Your task to perform on an android device: turn notification dots on Image 0: 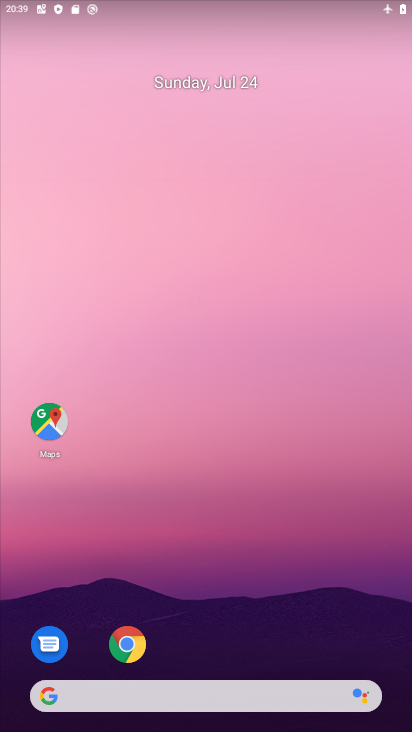
Step 0: drag from (367, 654) to (330, 300)
Your task to perform on an android device: turn notification dots on Image 1: 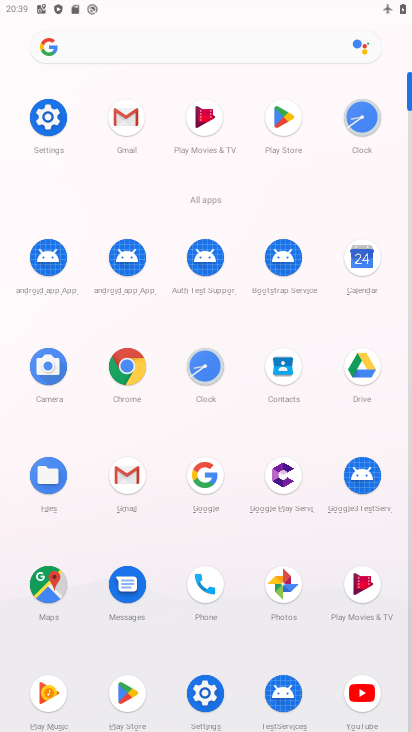
Step 1: click (206, 702)
Your task to perform on an android device: turn notification dots on Image 2: 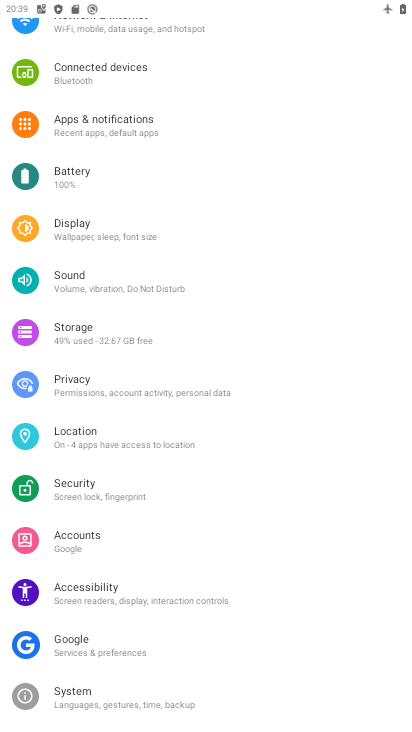
Step 2: click (112, 127)
Your task to perform on an android device: turn notification dots on Image 3: 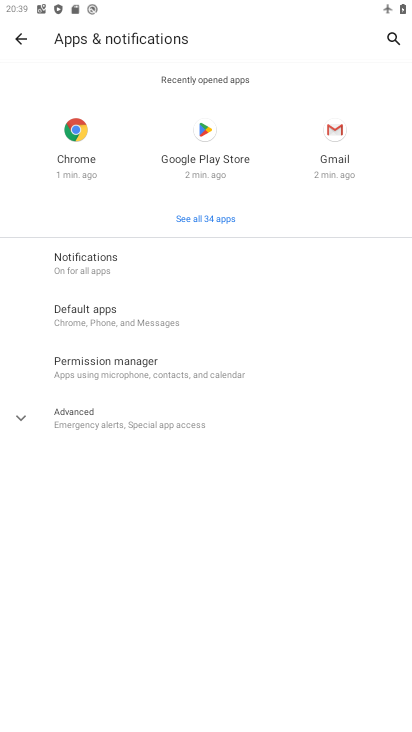
Step 3: click (85, 265)
Your task to perform on an android device: turn notification dots on Image 4: 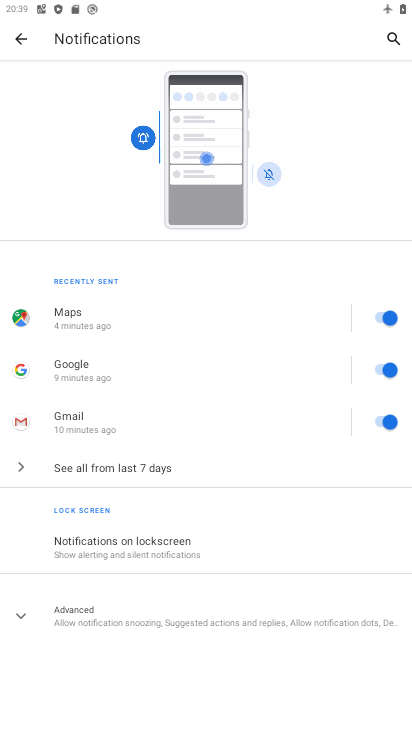
Step 4: click (28, 615)
Your task to perform on an android device: turn notification dots on Image 5: 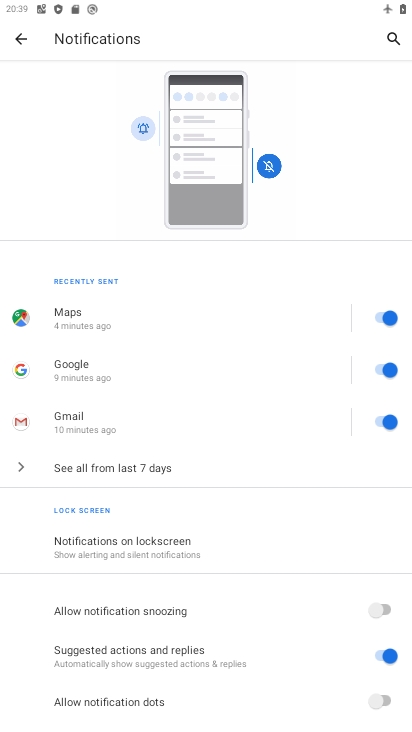
Step 5: drag from (261, 649) to (244, 351)
Your task to perform on an android device: turn notification dots on Image 6: 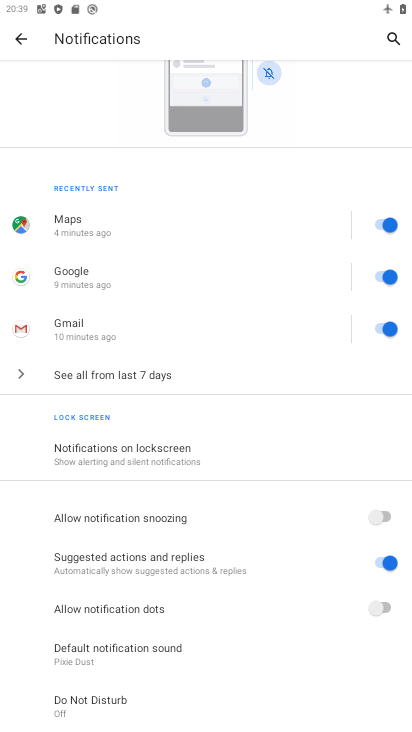
Step 6: click (390, 605)
Your task to perform on an android device: turn notification dots on Image 7: 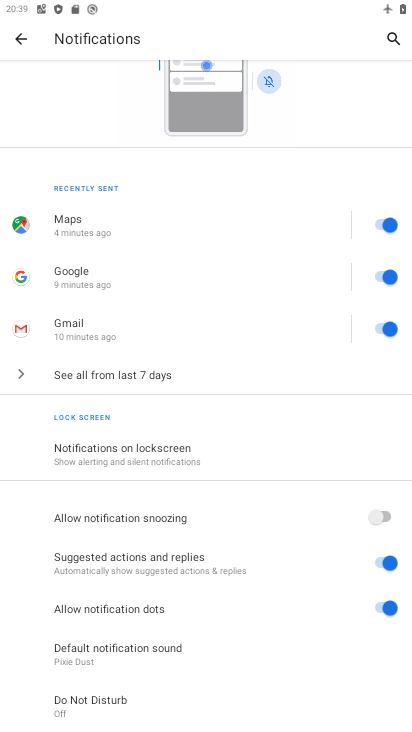
Step 7: task complete